Your task to perform on an android device: Go to settings Image 0: 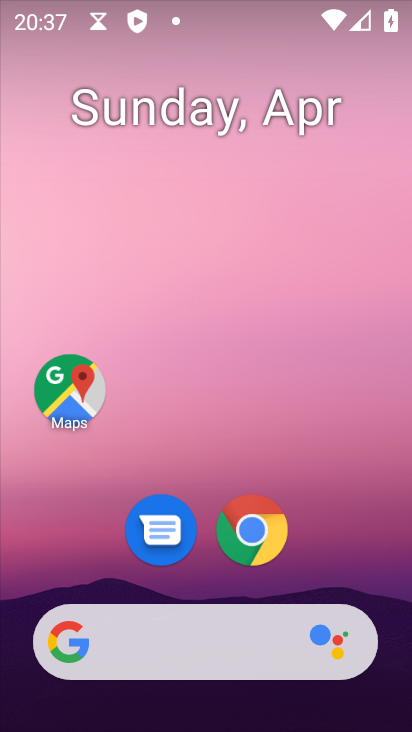
Step 0: drag from (210, 557) to (246, 70)
Your task to perform on an android device: Go to settings Image 1: 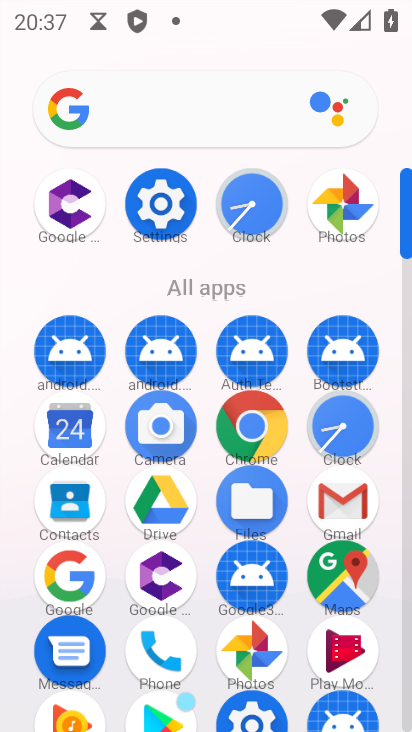
Step 1: click (162, 198)
Your task to perform on an android device: Go to settings Image 2: 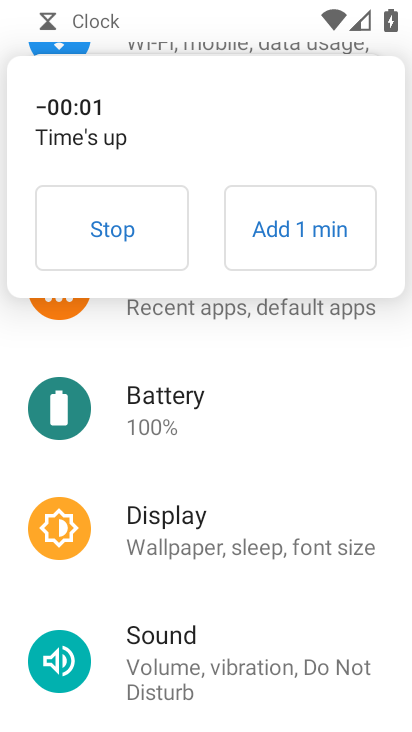
Step 2: task complete